Your task to perform on an android device: Check the news Image 0: 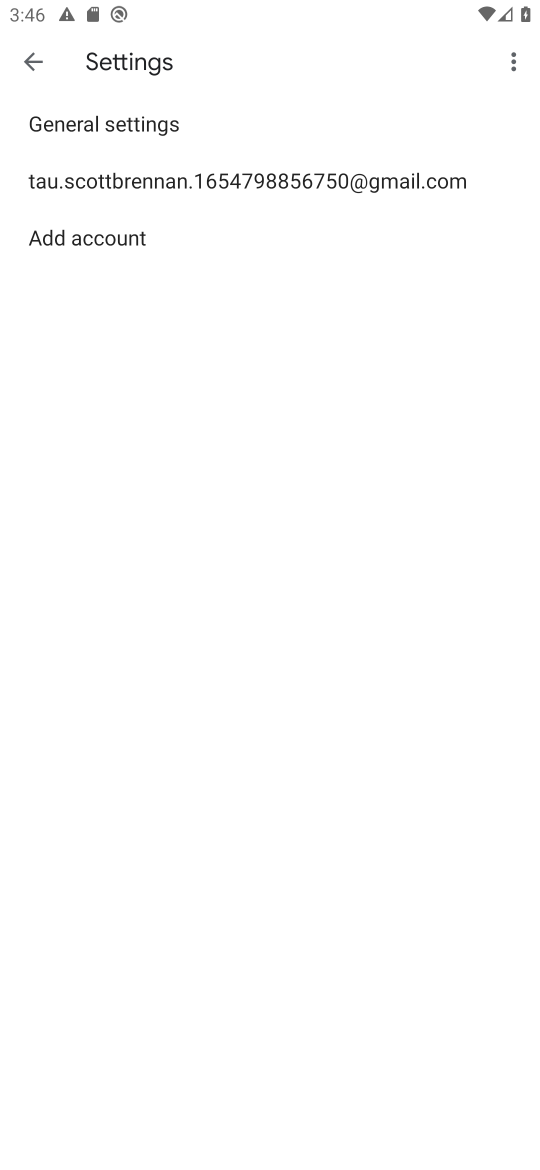
Step 0: press home button
Your task to perform on an android device: Check the news Image 1: 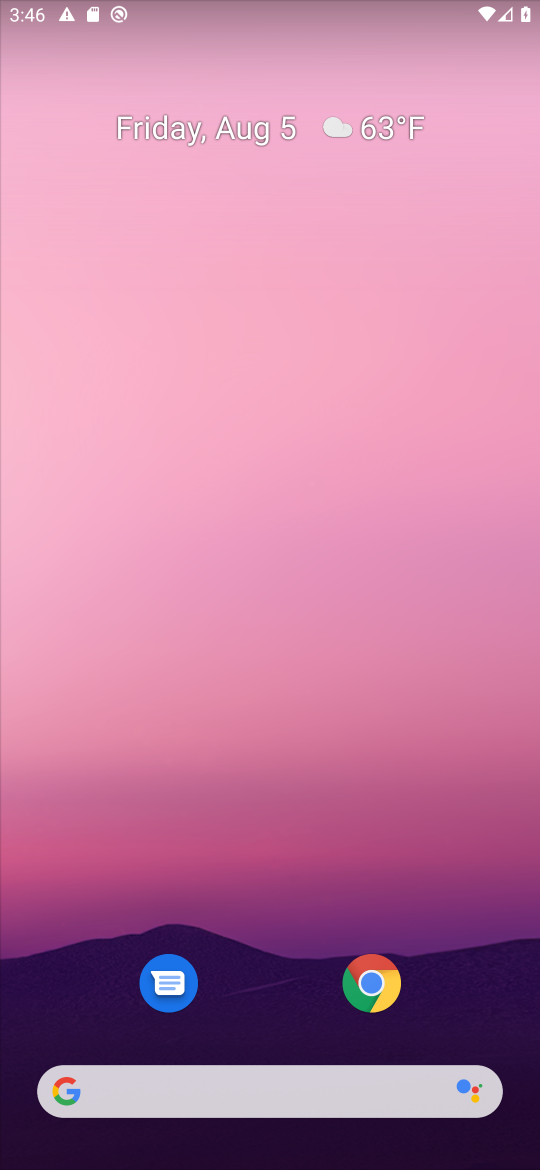
Step 1: click (222, 1080)
Your task to perform on an android device: Check the news Image 2: 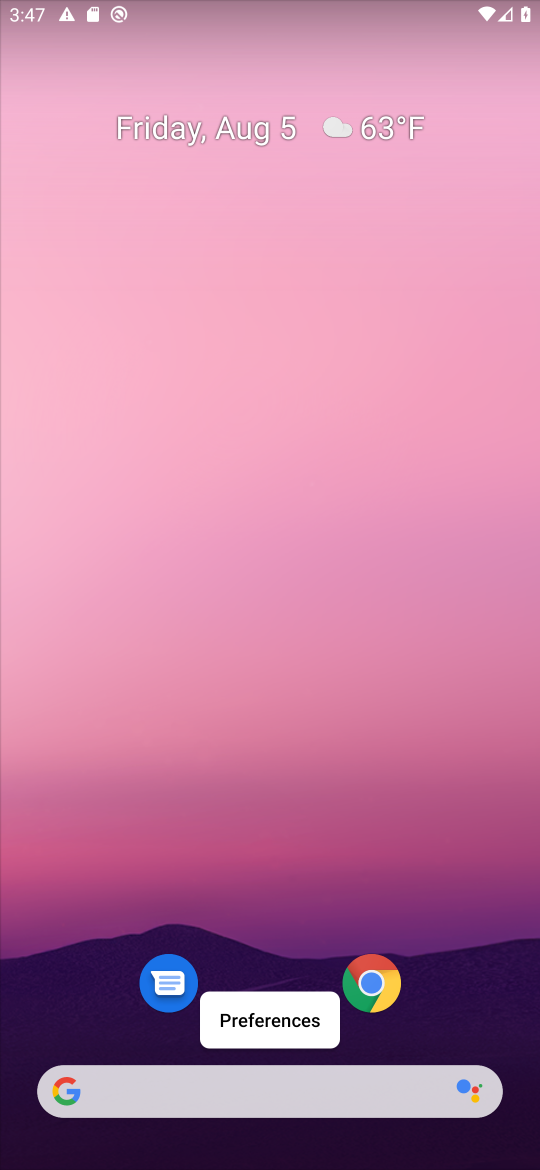
Step 2: click (219, 1098)
Your task to perform on an android device: Check the news Image 3: 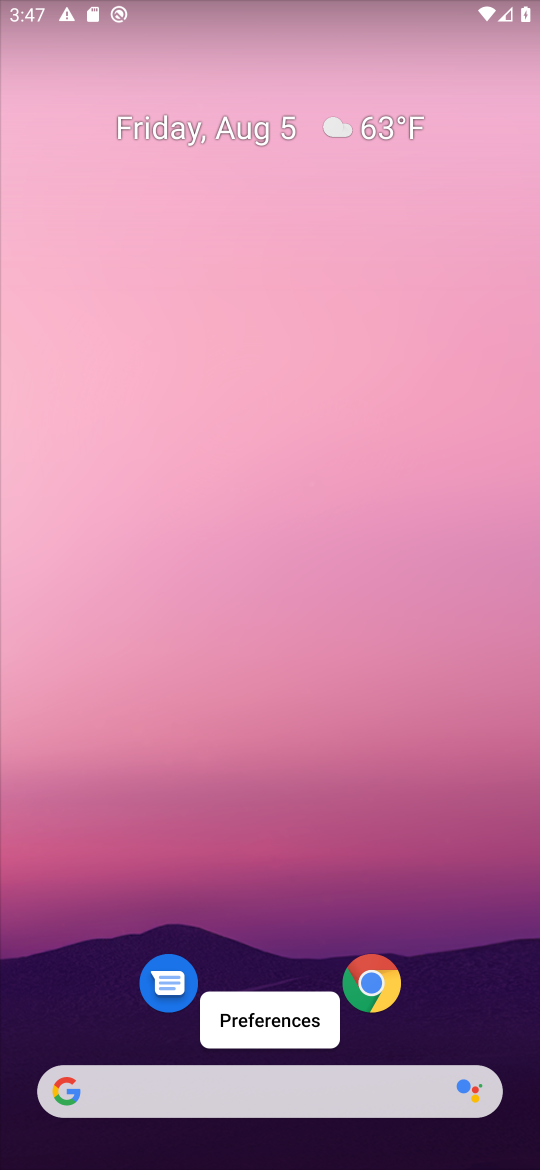
Step 3: click (247, 1086)
Your task to perform on an android device: Check the news Image 4: 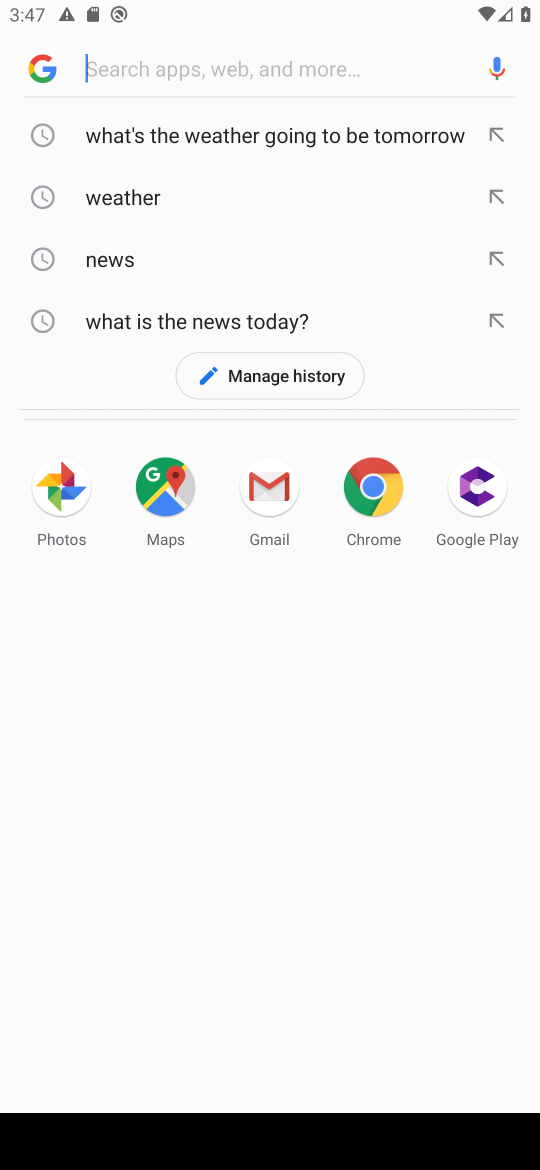
Step 4: click (247, 1086)
Your task to perform on an android device: Check the news Image 5: 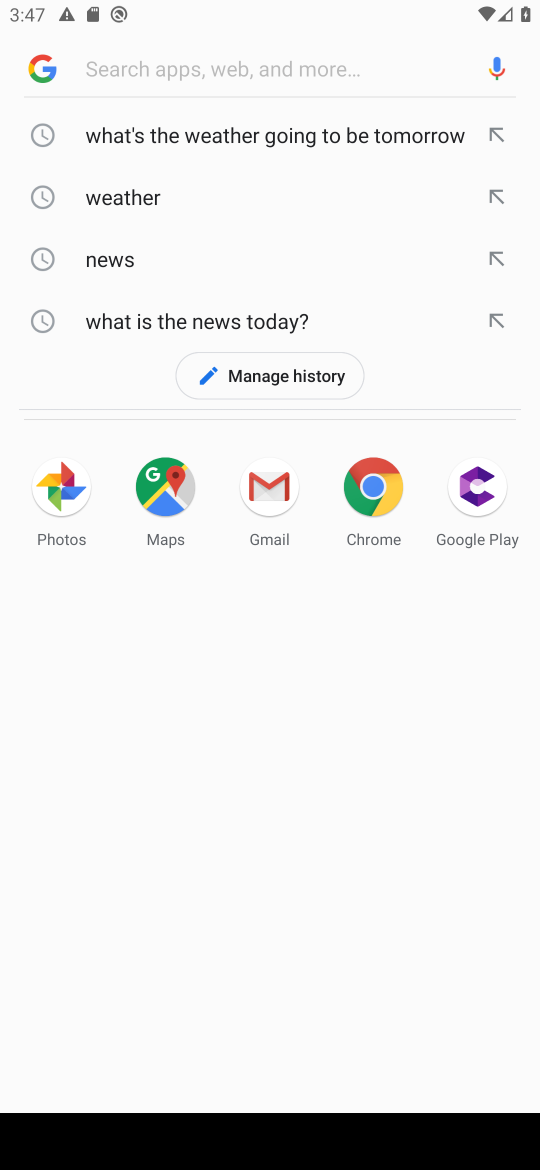
Step 5: type "news"
Your task to perform on an android device: Check the news Image 6: 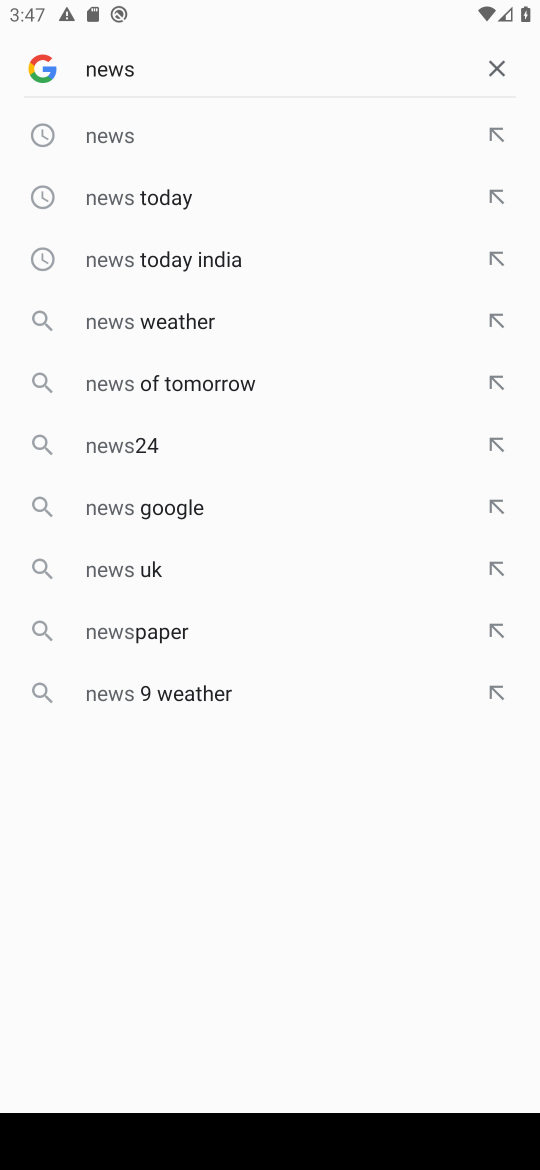
Step 6: click (118, 129)
Your task to perform on an android device: Check the news Image 7: 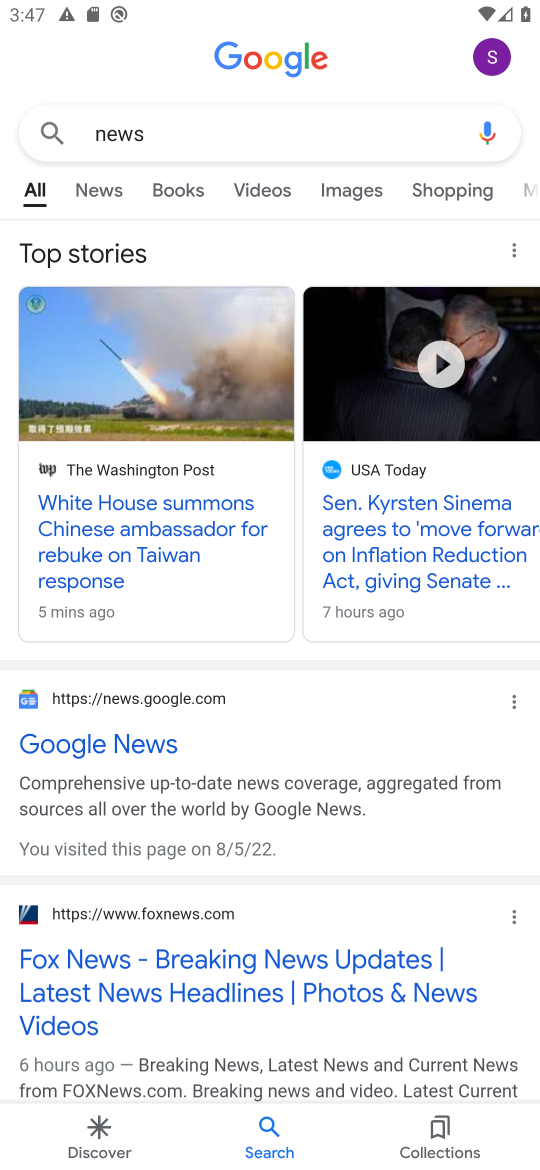
Step 7: task complete